Your task to perform on an android device: change the clock display to show seconds Image 0: 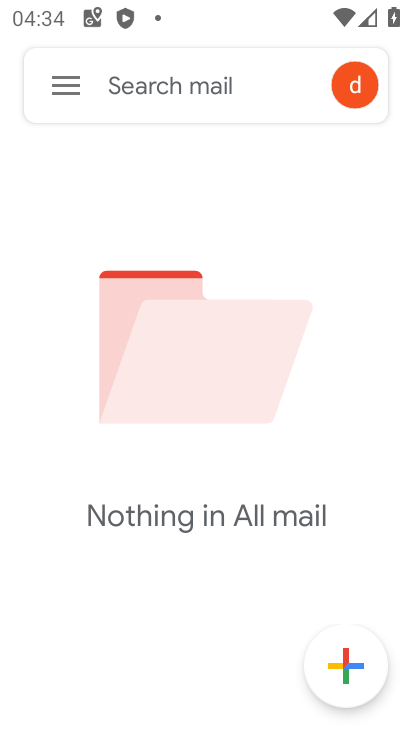
Step 0: press home button
Your task to perform on an android device: change the clock display to show seconds Image 1: 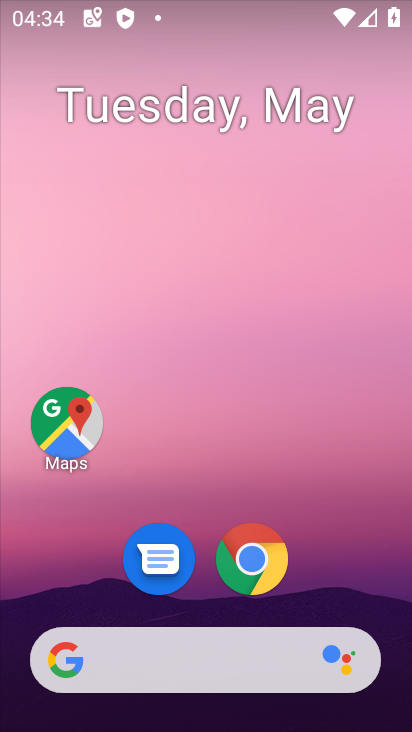
Step 1: drag from (338, 572) to (287, 158)
Your task to perform on an android device: change the clock display to show seconds Image 2: 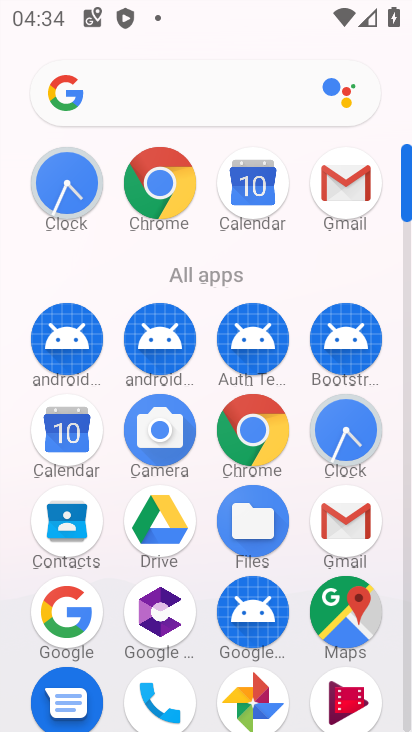
Step 2: click (358, 423)
Your task to perform on an android device: change the clock display to show seconds Image 3: 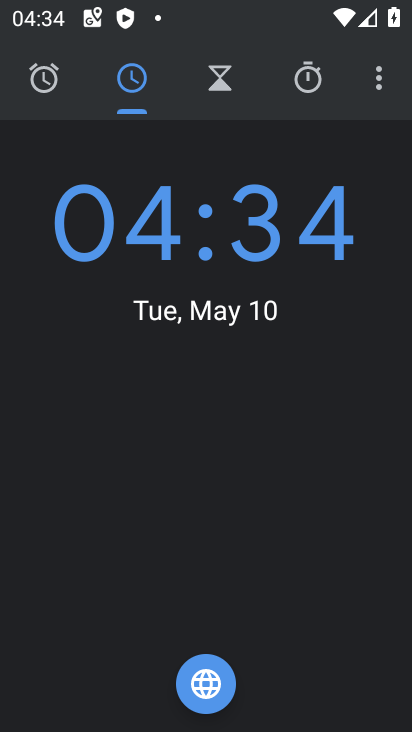
Step 3: click (377, 73)
Your task to perform on an android device: change the clock display to show seconds Image 4: 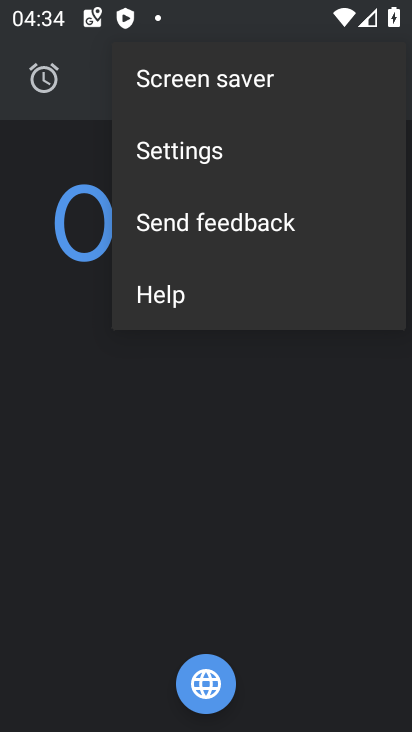
Step 4: click (219, 173)
Your task to perform on an android device: change the clock display to show seconds Image 5: 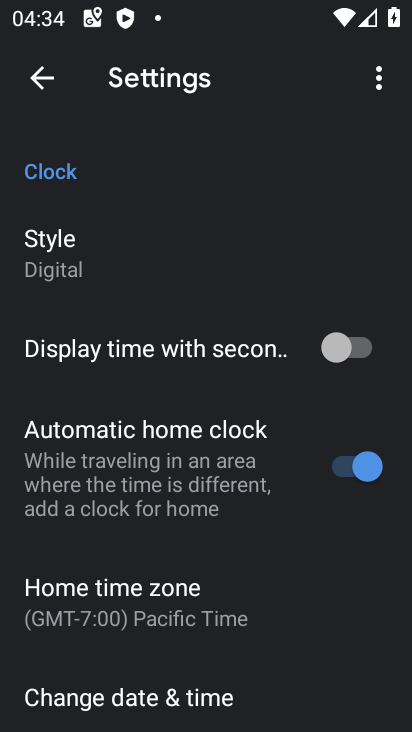
Step 5: click (345, 361)
Your task to perform on an android device: change the clock display to show seconds Image 6: 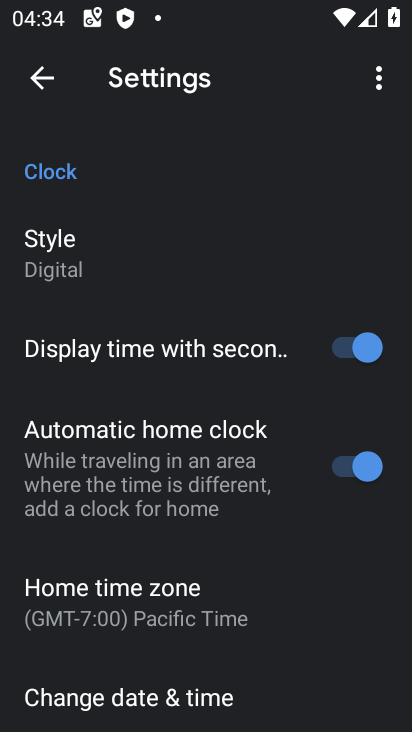
Step 6: task complete